Your task to perform on an android device: Go to notification settings Image 0: 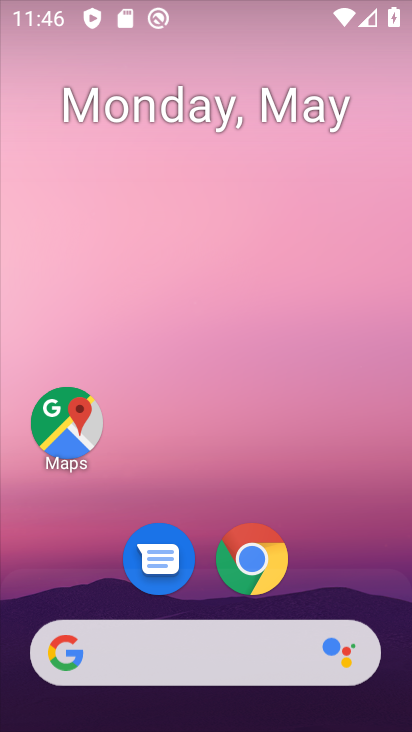
Step 0: press home button
Your task to perform on an android device: Go to notification settings Image 1: 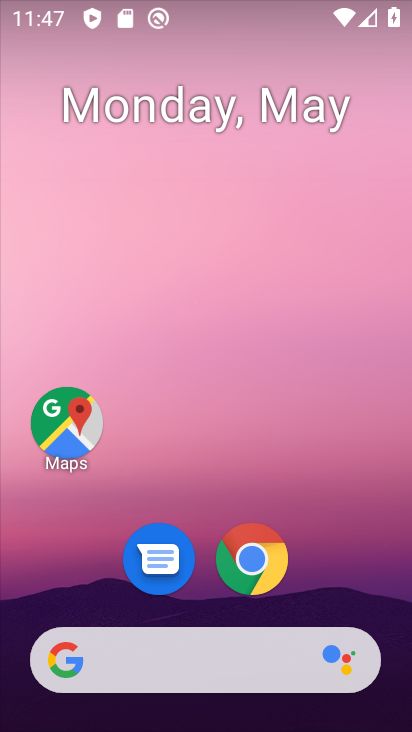
Step 1: drag from (209, 599) to (217, 293)
Your task to perform on an android device: Go to notification settings Image 2: 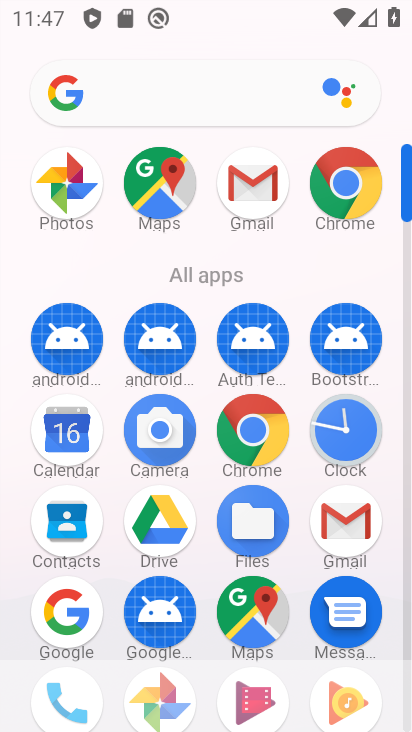
Step 2: drag from (202, 574) to (213, 101)
Your task to perform on an android device: Go to notification settings Image 3: 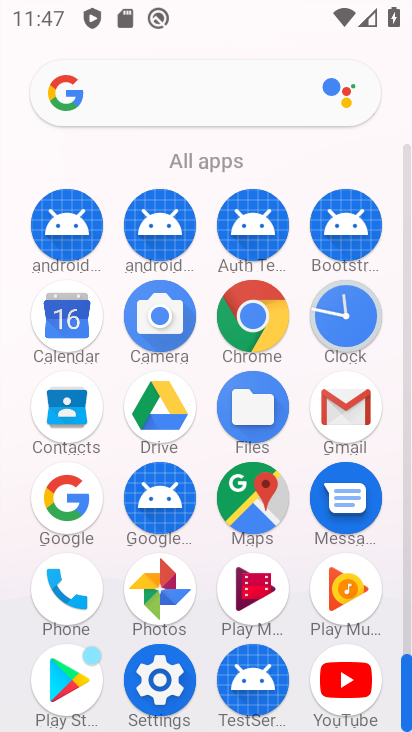
Step 3: click (156, 675)
Your task to perform on an android device: Go to notification settings Image 4: 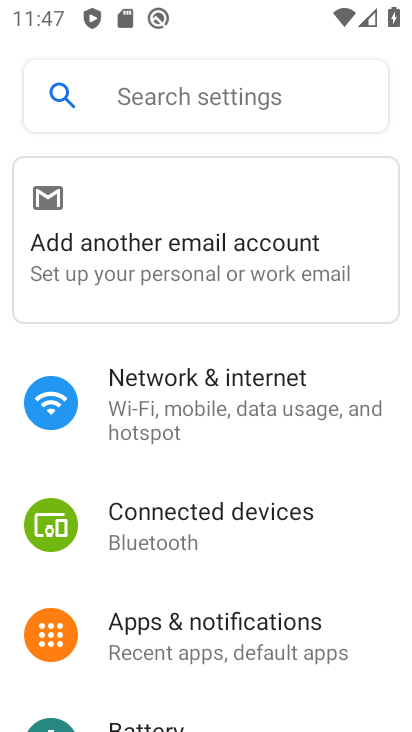
Step 4: click (221, 628)
Your task to perform on an android device: Go to notification settings Image 5: 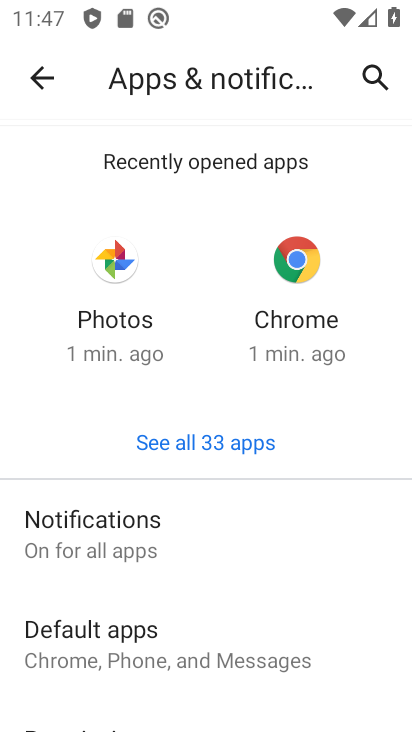
Step 5: click (186, 537)
Your task to perform on an android device: Go to notification settings Image 6: 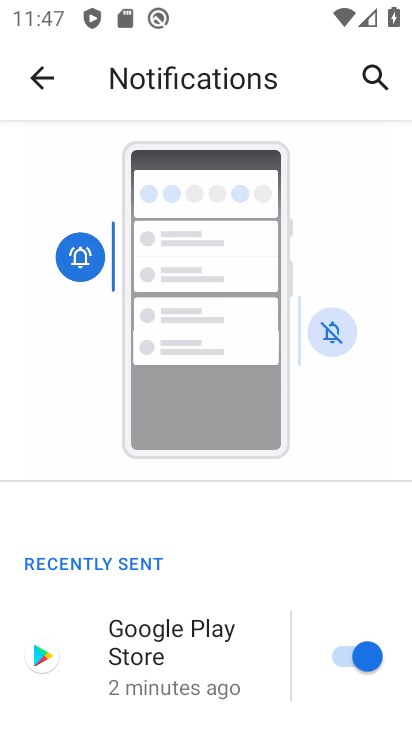
Step 6: drag from (239, 633) to (235, 386)
Your task to perform on an android device: Go to notification settings Image 7: 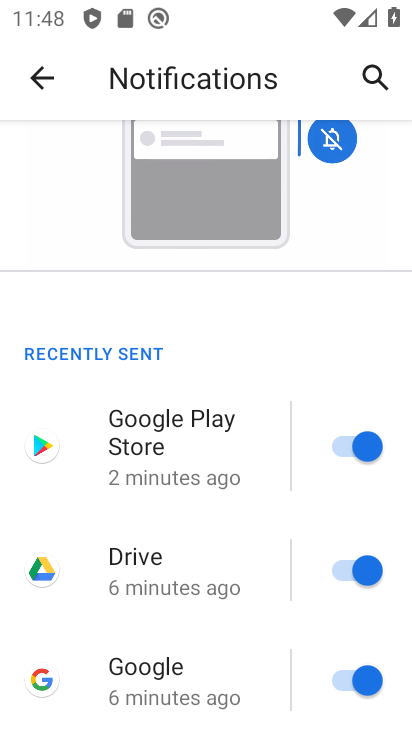
Step 7: drag from (240, 627) to (245, 333)
Your task to perform on an android device: Go to notification settings Image 8: 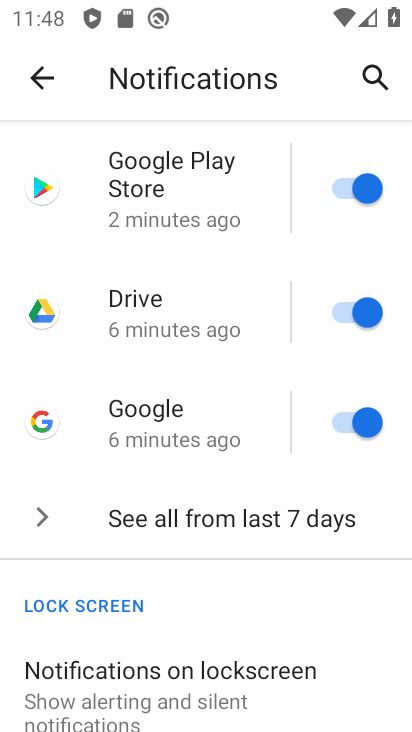
Step 8: drag from (203, 657) to (215, 132)
Your task to perform on an android device: Go to notification settings Image 9: 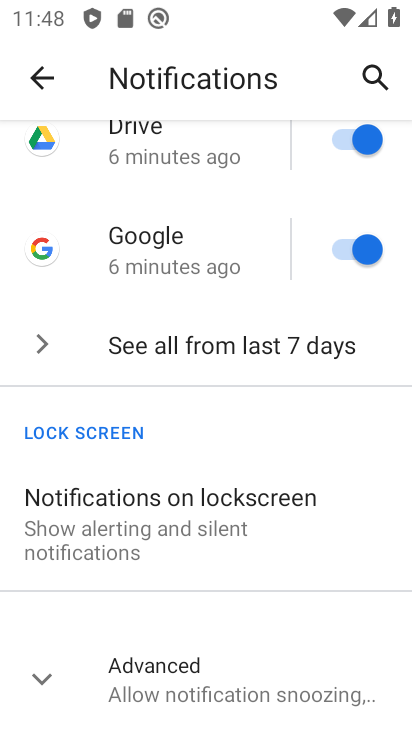
Step 9: click (125, 665)
Your task to perform on an android device: Go to notification settings Image 10: 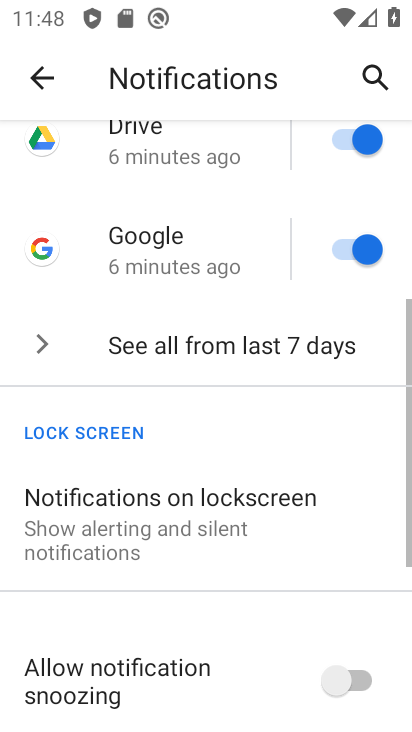
Step 10: drag from (240, 671) to (277, 117)
Your task to perform on an android device: Go to notification settings Image 11: 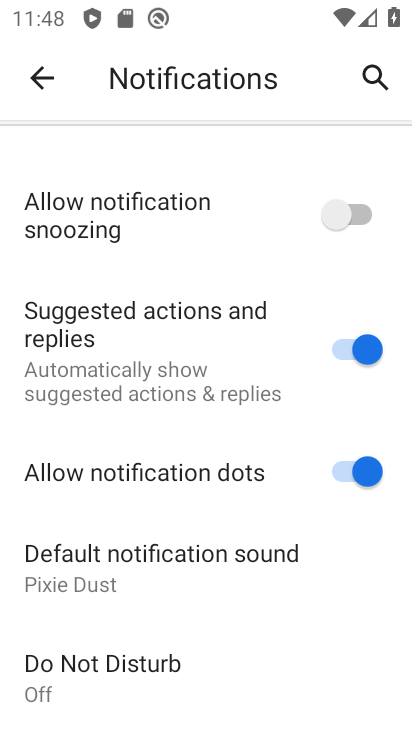
Step 11: click (217, 659)
Your task to perform on an android device: Go to notification settings Image 12: 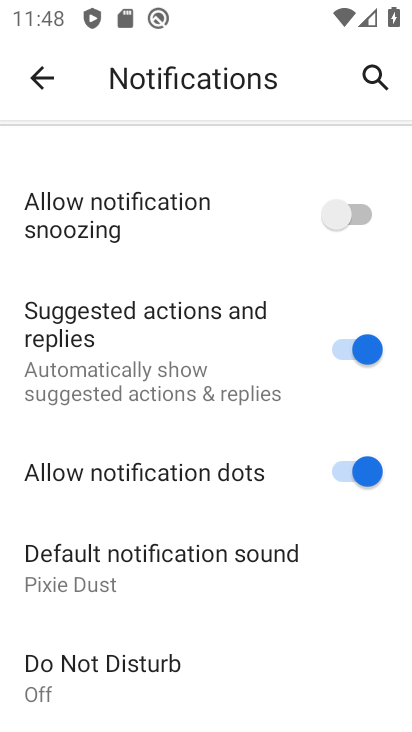
Step 12: task complete